Your task to perform on an android device: Check the settings for the Google Photos app Image 0: 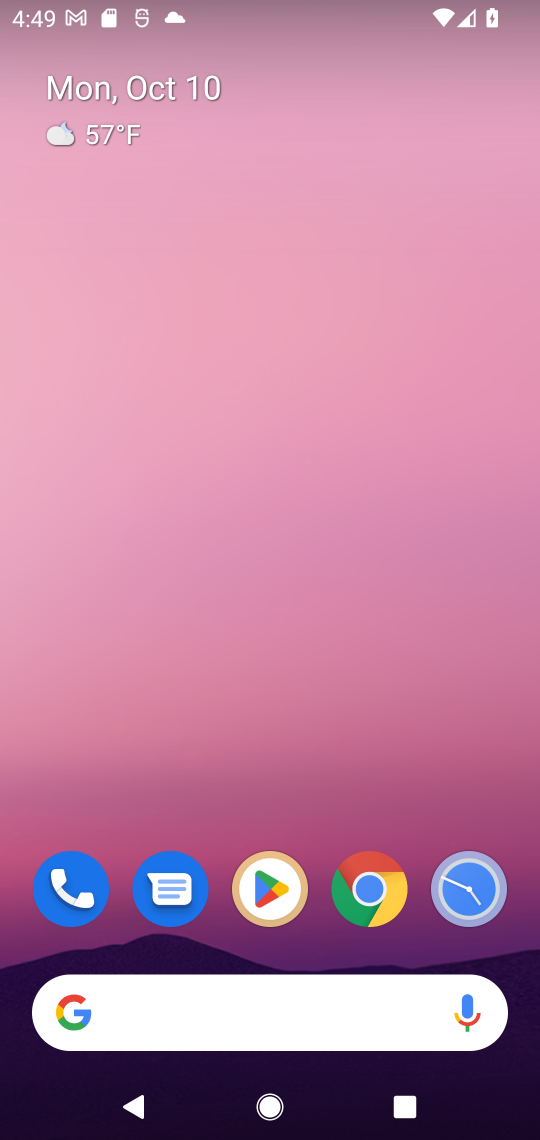
Step 0: drag from (418, 956) to (395, 264)
Your task to perform on an android device: Check the settings for the Google Photos app Image 1: 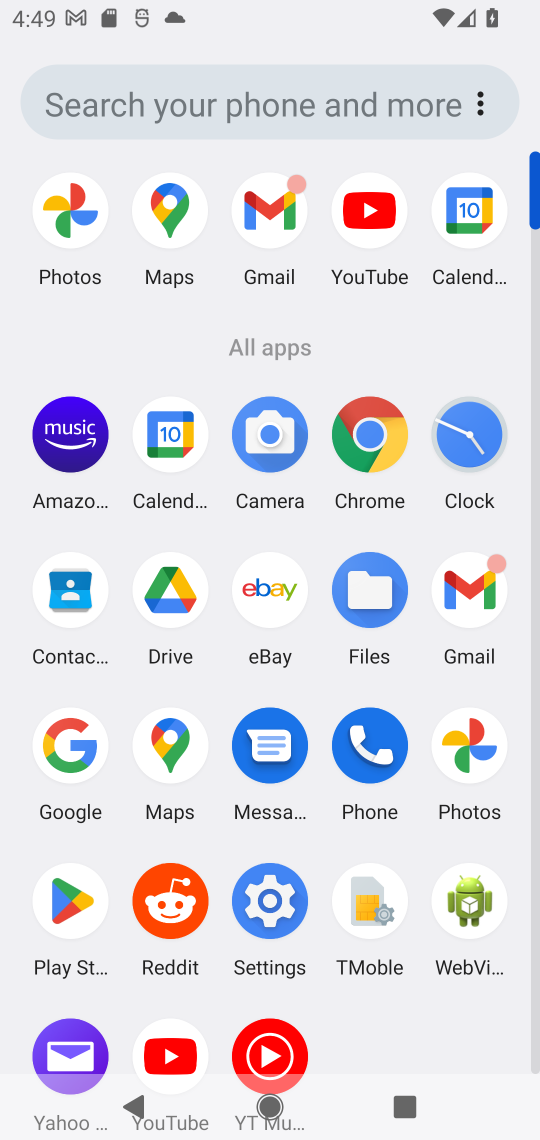
Step 1: click (474, 734)
Your task to perform on an android device: Check the settings for the Google Photos app Image 2: 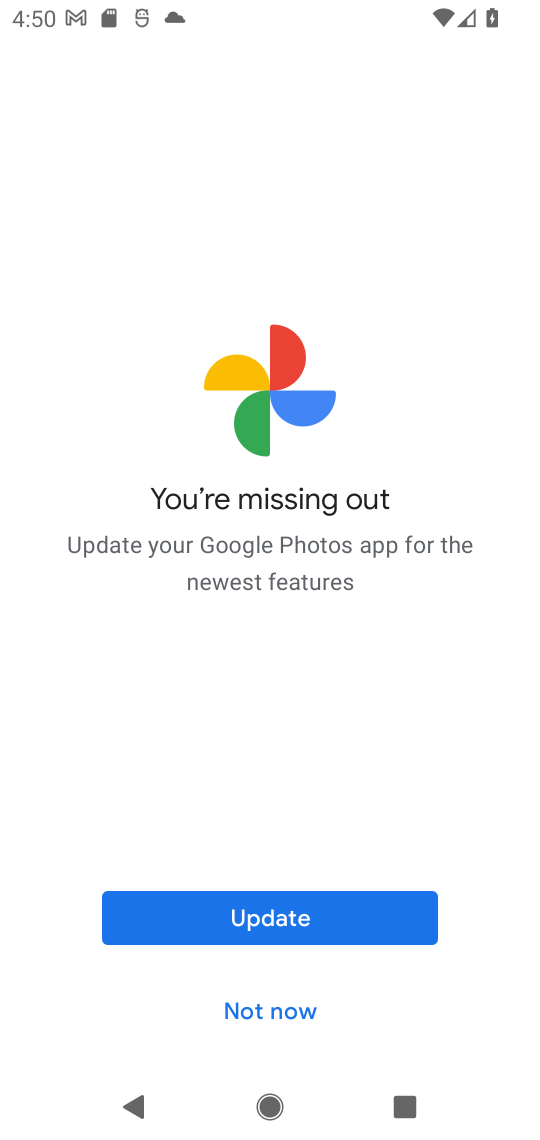
Step 2: click (271, 913)
Your task to perform on an android device: Check the settings for the Google Photos app Image 3: 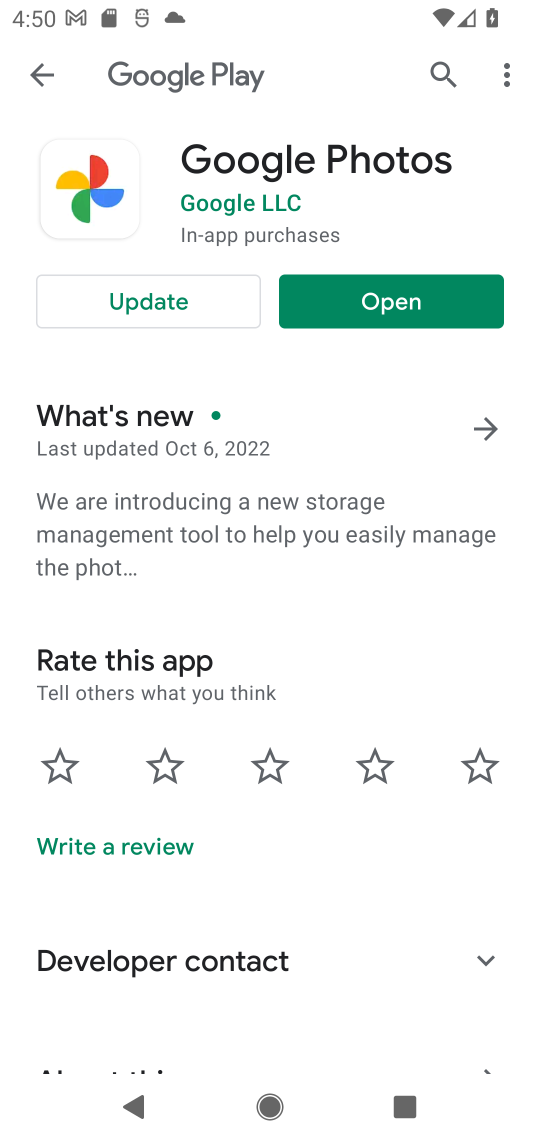
Step 3: click (387, 312)
Your task to perform on an android device: Check the settings for the Google Photos app Image 4: 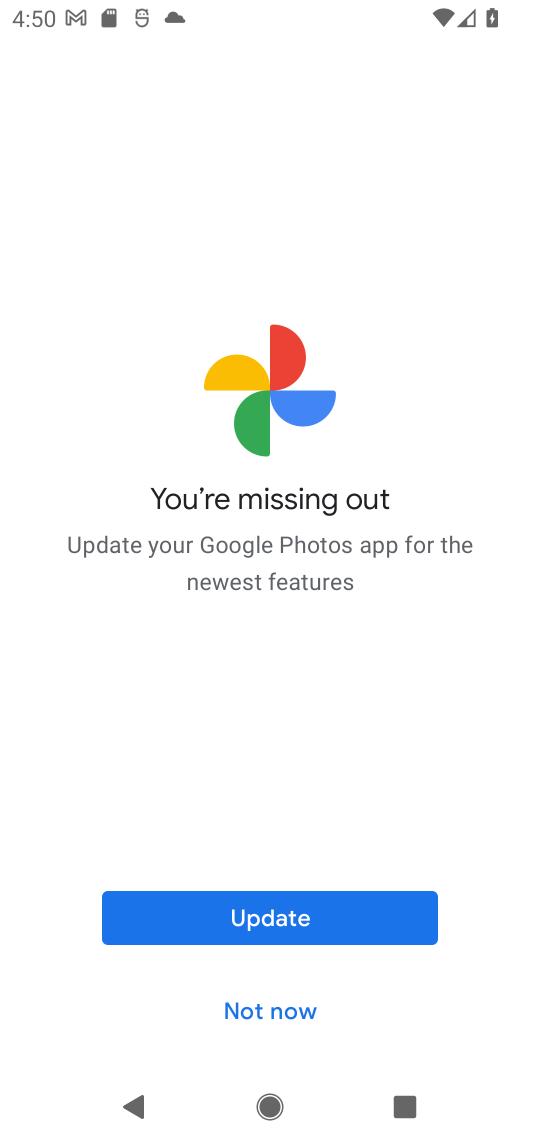
Step 4: click (258, 917)
Your task to perform on an android device: Check the settings for the Google Photos app Image 5: 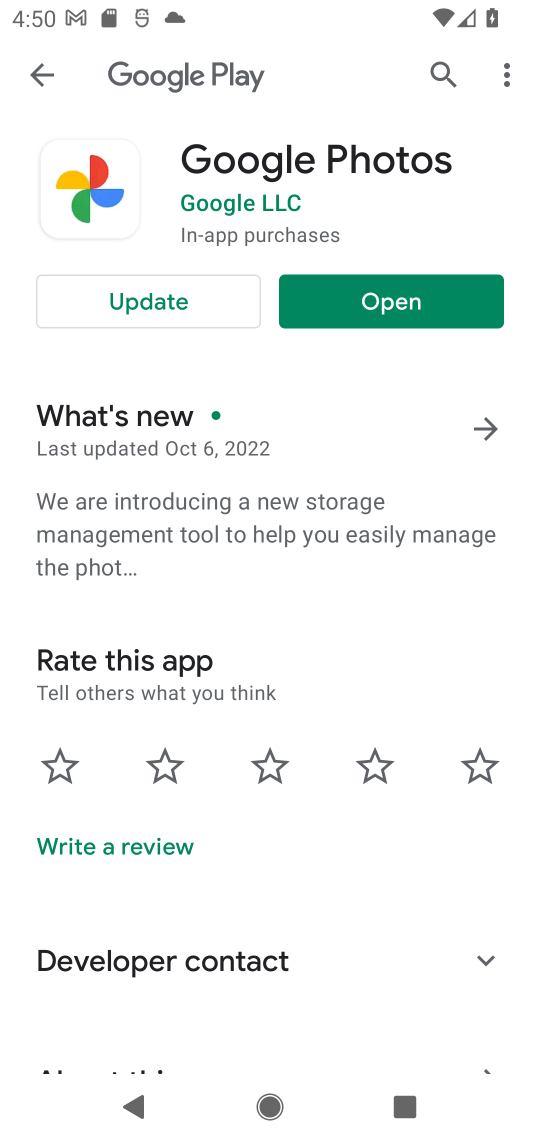
Step 5: click (143, 307)
Your task to perform on an android device: Check the settings for the Google Photos app Image 6: 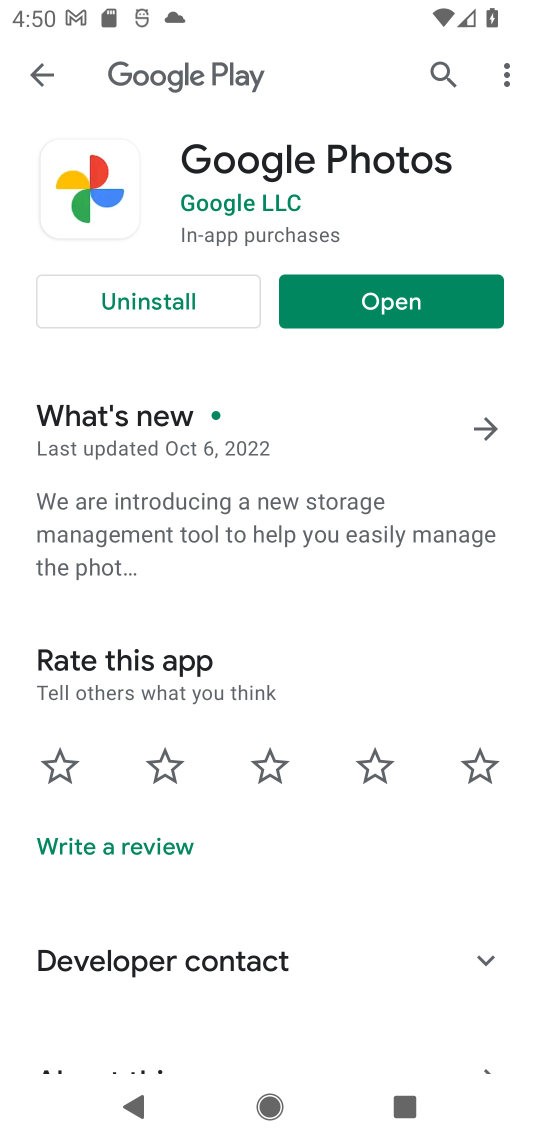
Step 6: click (378, 304)
Your task to perform on an android device: Check the settings for the Google Photos app Image 7: 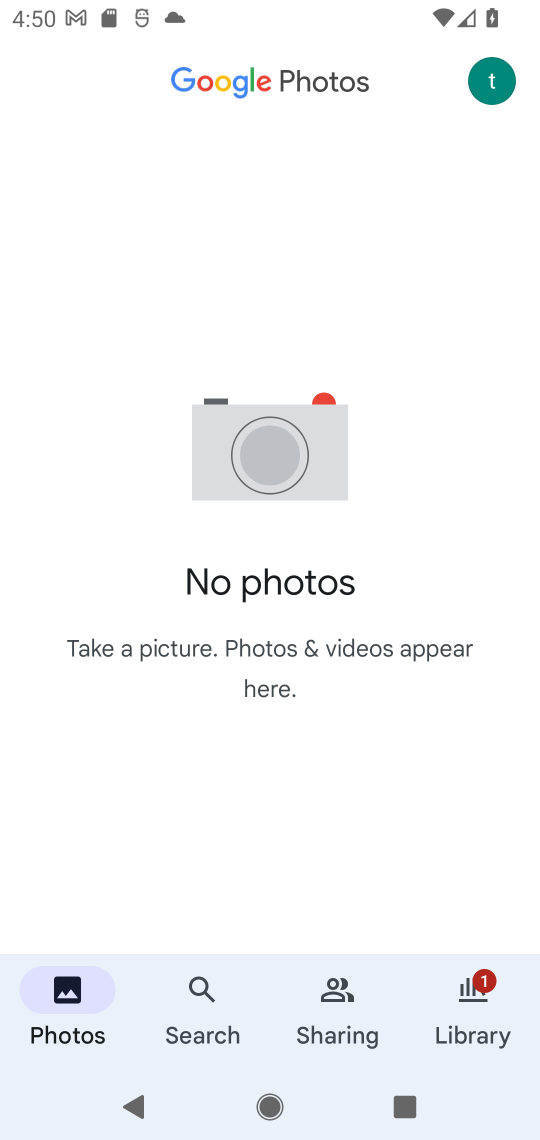
Step 7: click (492, 80)
Your task to perform on an android device: Check the settings for the Google Photos app Image 8: 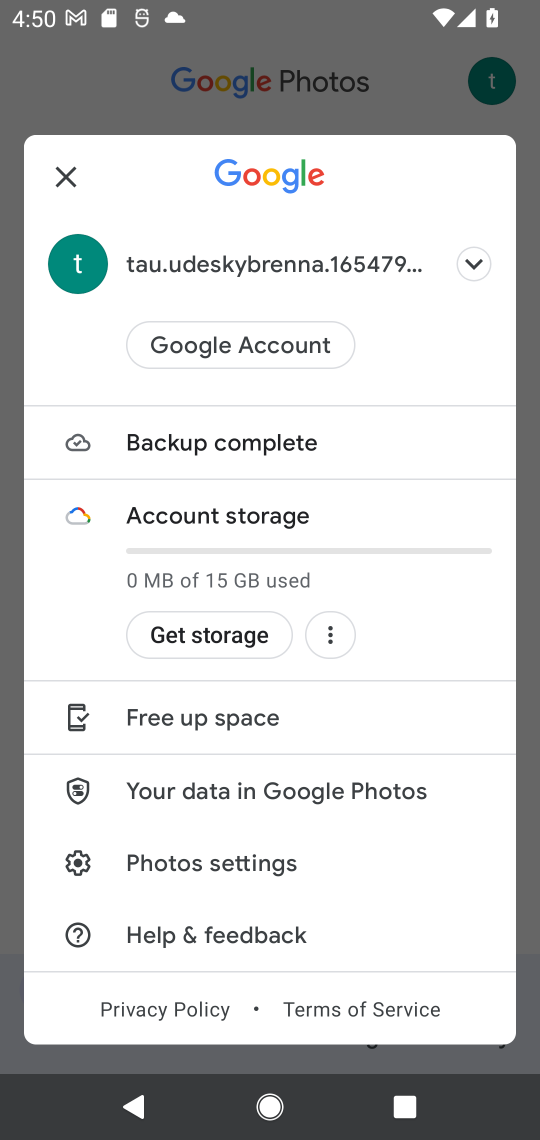
Step 8: click (165, 850)
Your task to perform on an android device: Check the settings for the Google Photos app Image 9: 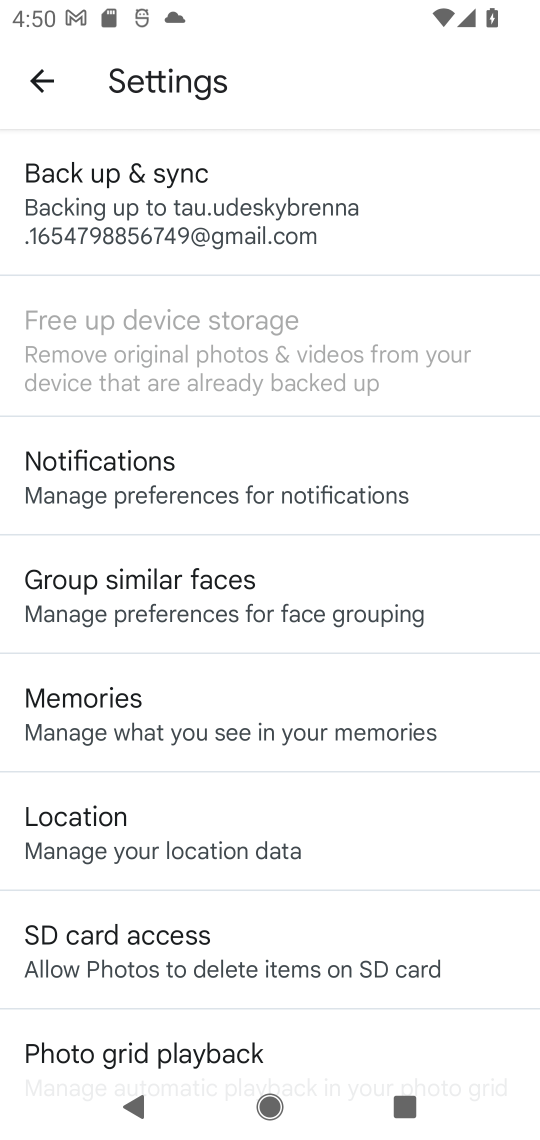
Step 9: task complete